Your task to perform on an android device: Go to Google maps Image 0: 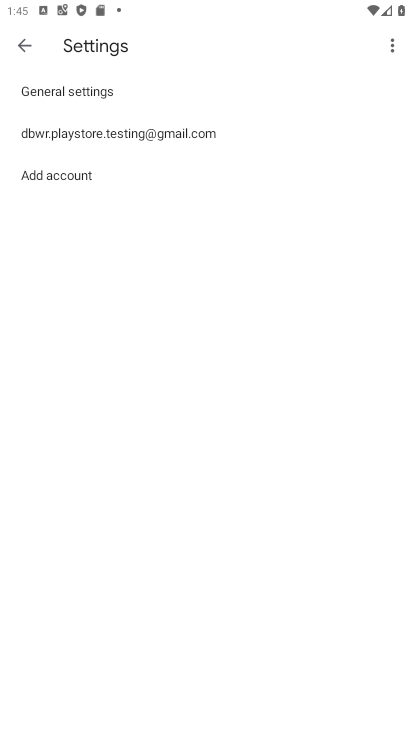
Step 0: press home button
Your task to perform on an android device: Go to Google maps Image 1: 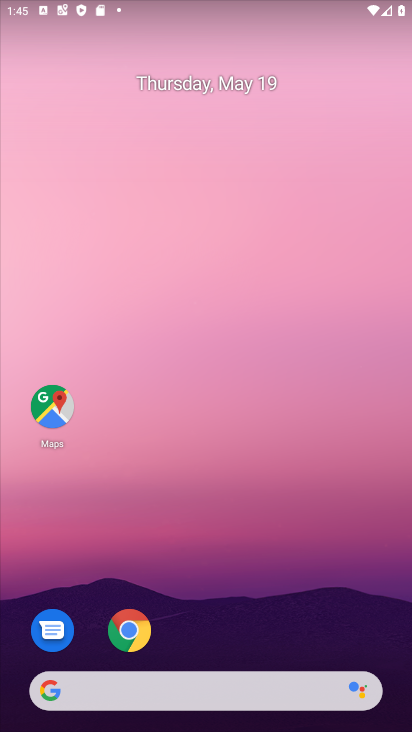
Step 1: click (51, 405)
Your task to perform on an android device: Go to Google maps Image 2: 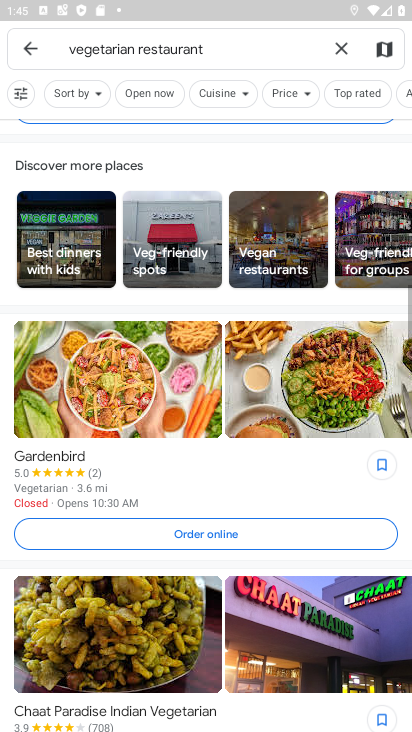
Step 2: click (341, 43)
Your task to perform on an android device: Go to Google maps Image 3: 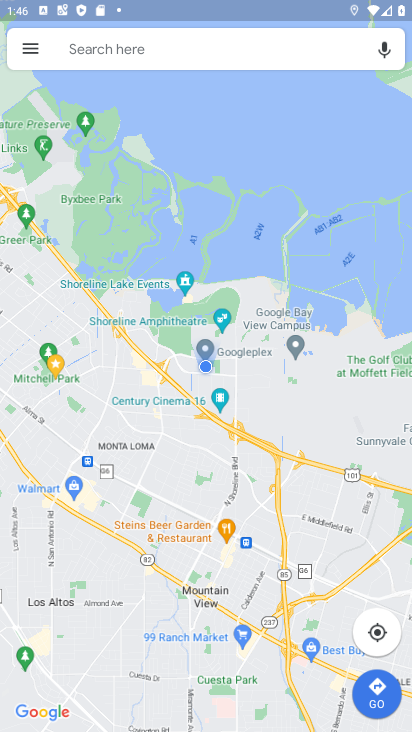
Step 3: task complete